Your task to perform on an android device: toggle location history Image 0: 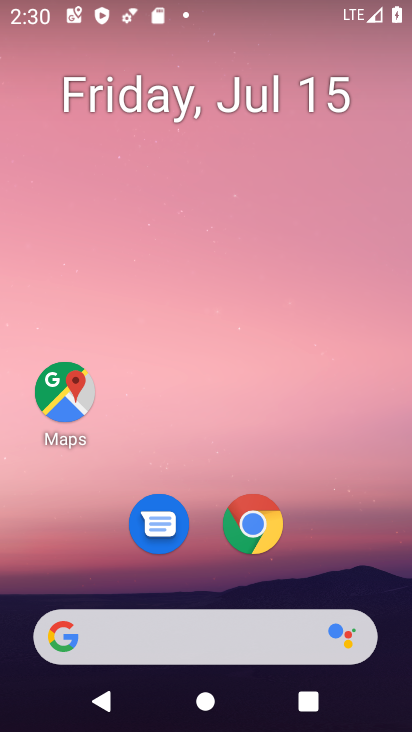
Step 0: drag from (177, 646) to (244, 251)
Your task to perform on an android device: toggle location history Image 1: 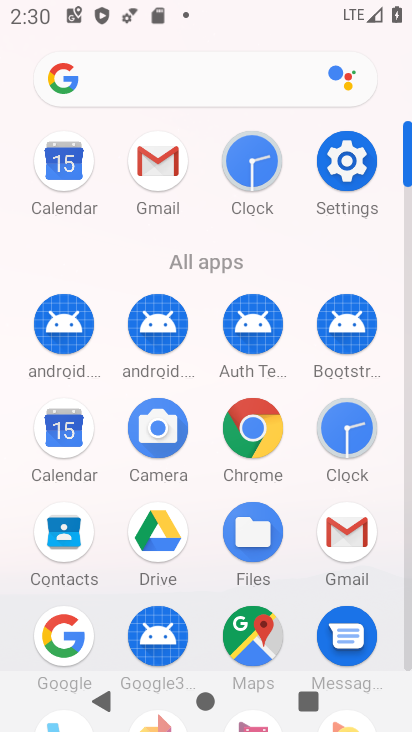
Step 1: click (255, 636)
Your task to perform on an android device: toggle location history Image 2: 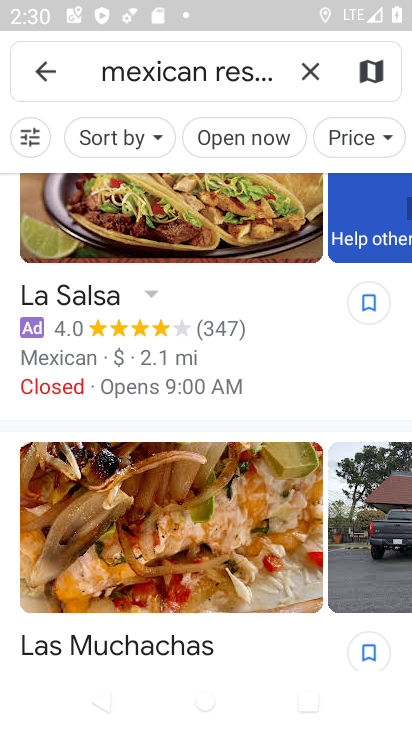
Step 2: click (53, 68)
Your task to perform on an android device: toggle location history Image 3: 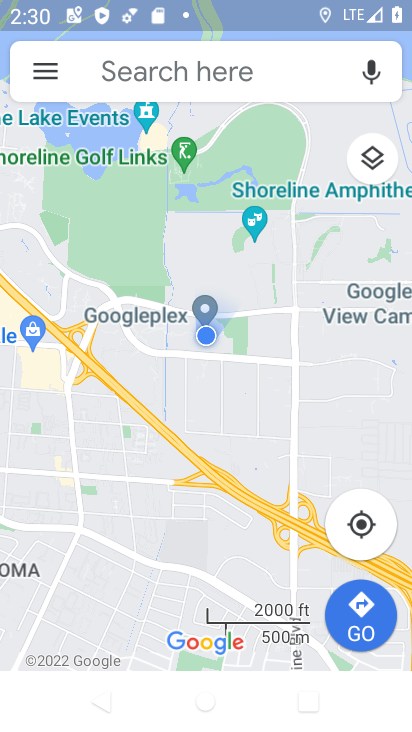
Step 3: click (55, 65)
Your task to perform on an android device: toggle location history Image 4: 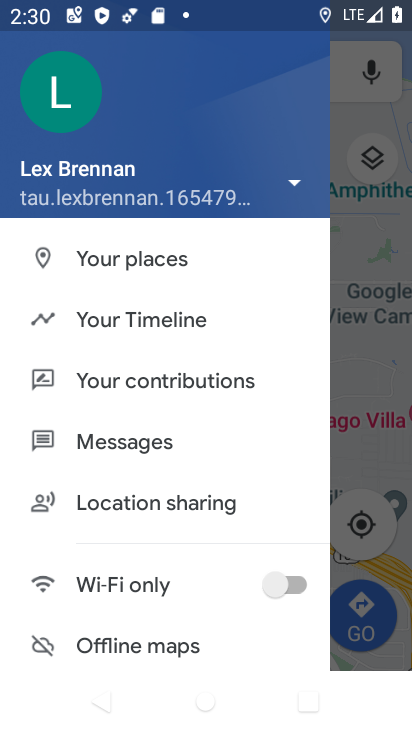
Step 4: click (170, 316)
Your task to perform on an android device: toggle location history Image 5: 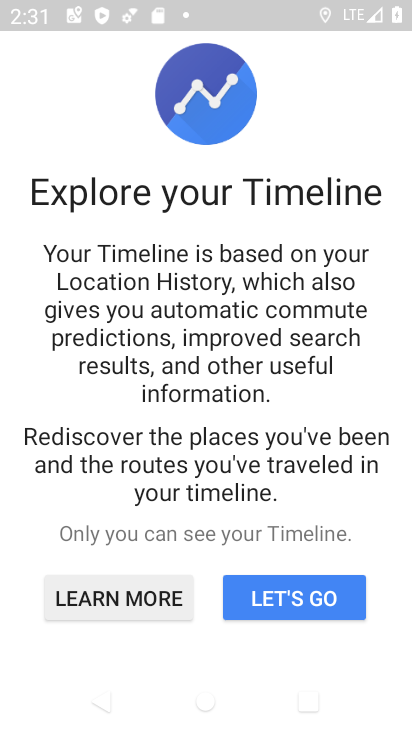
Step 5: click (290, 593)
Your task to perform on an android device: toggle location history Image 6: 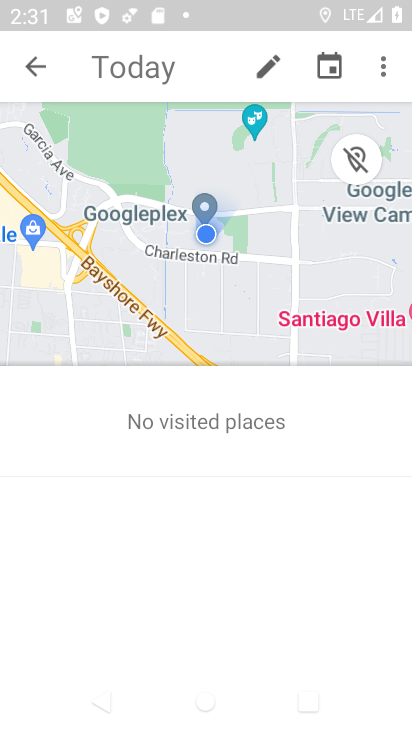
Step 6: click (390, 64)
Your task to perform on an android device: toggle location history Image 7: 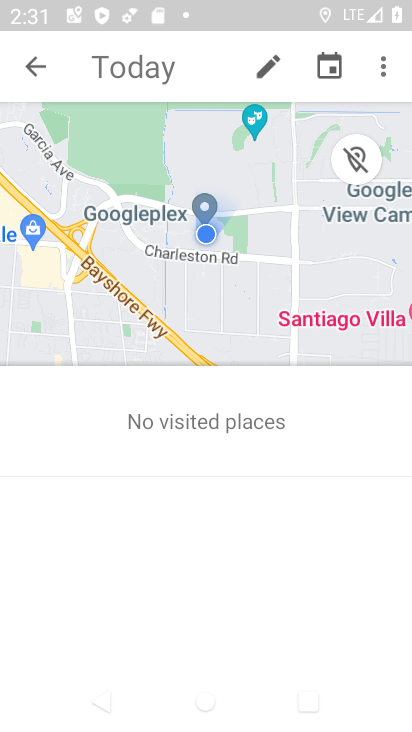
Step 7: click (382, 71)
Your task to perform on an android device: toggle location history Image 8: 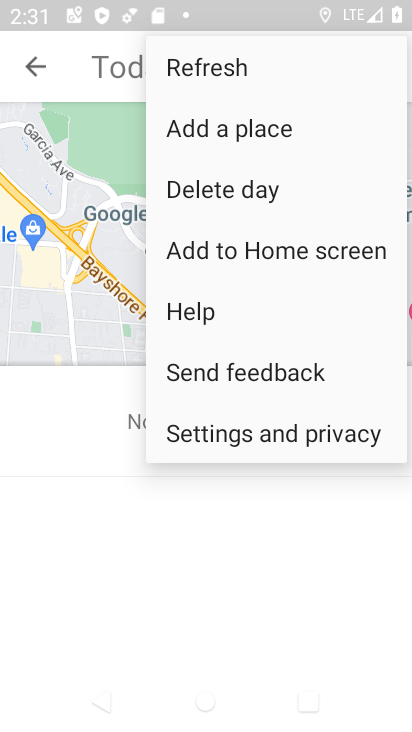
Step 8: click (282, 432)
Your task to perform on an android device: toggle location history Image 9: 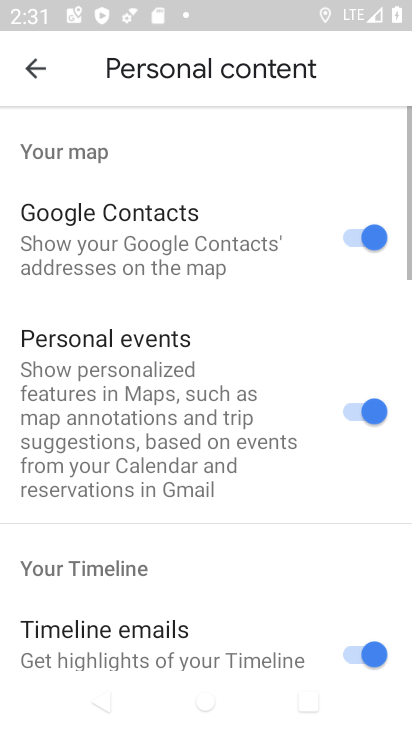
Step 9: drag from (195, 573) to (288, 107)
Your task to perform on an android device: toggle location history Image 10: 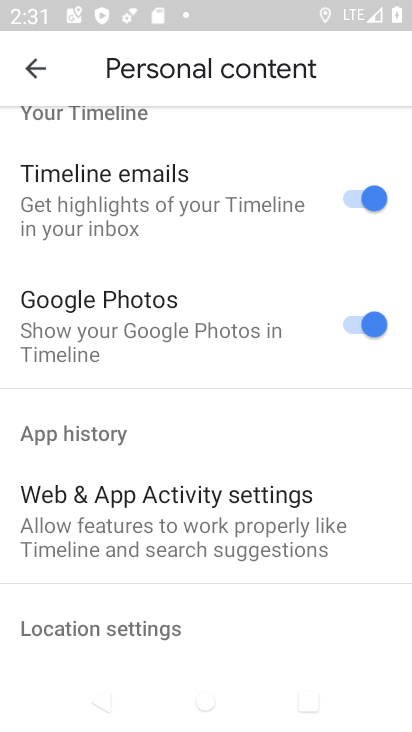
Step 10: drag from (223, 576) to (301, 133)
Your task to perform on an android device: toggle location history Image 11: 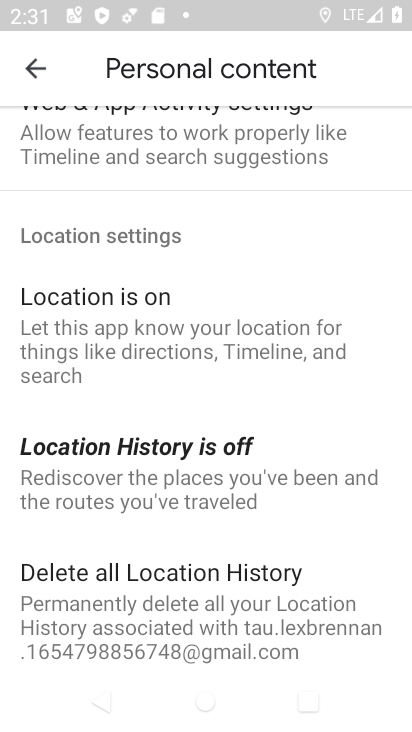
Step 11: click (204, 471)
Your task to perform on an android device: toggle location history Image 12: 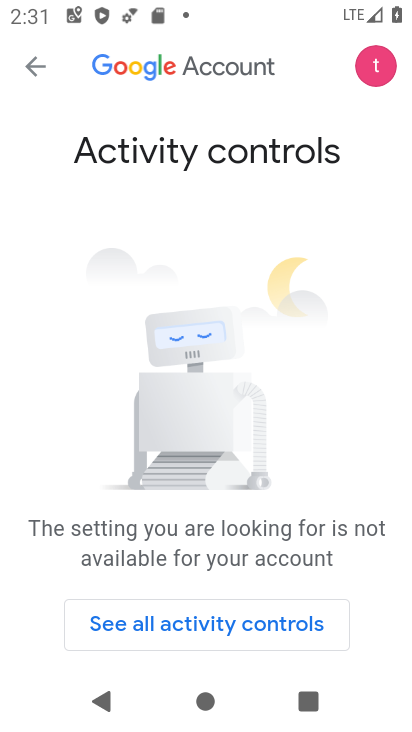
Step 12: task complete